Your task to perform on an android device: see sites visited before in the chrome app Image 0: 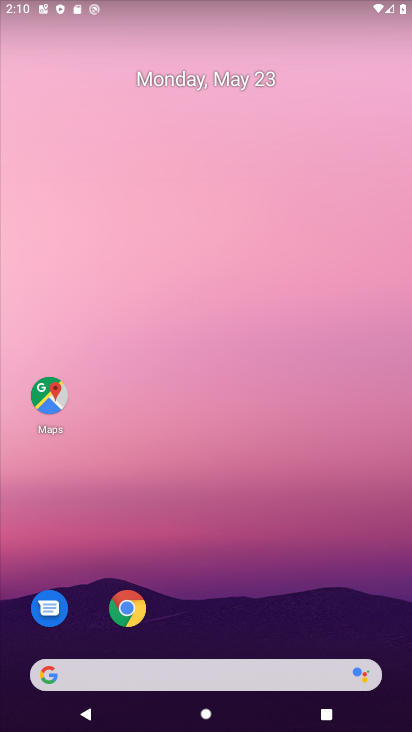
Step 0: drag from (220, 652) to (185, 134)
Your task to perform on an android device: see sites visited before in the chrome app Image 1: 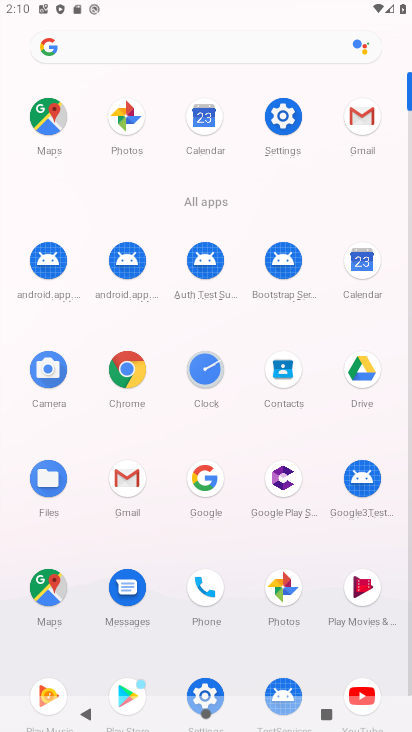
Step 1: click (140, 369)
Your task to perform on an android device: see sites visited before in the chrome app Image 2: 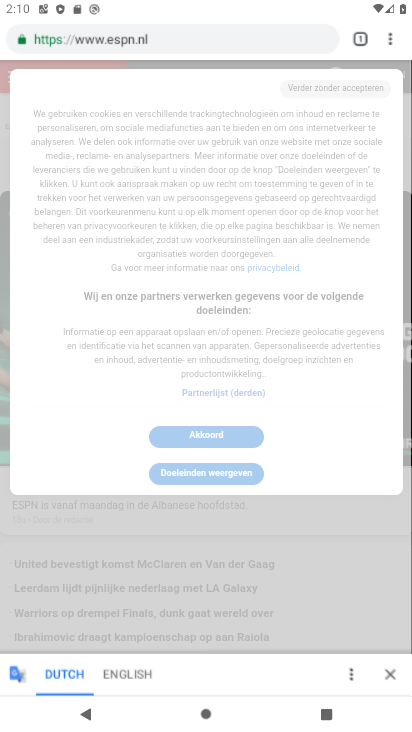
Step 2: click (353, 43)
Your task to perform on an android device: see sites visited before in the chrome app Image 3: 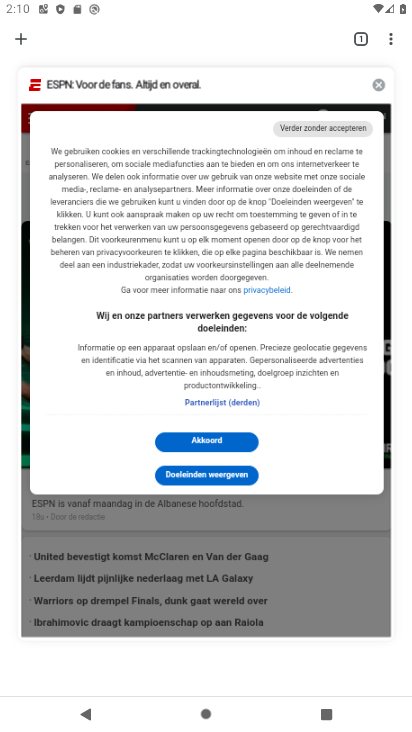
Step 3: task complete